Your task to perform on an android device: Open the Play Movies app and select the watchlist tab. Image 0: 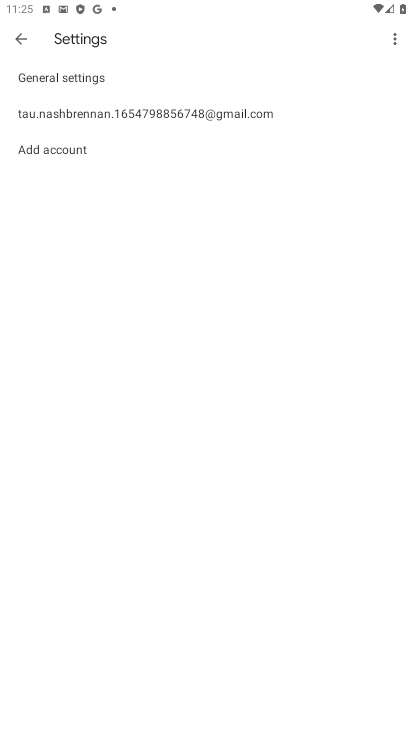
Step 0: press back button
Your task to perform on an android device: Open the Play Movies app and select the watchlist tab. Image 1: 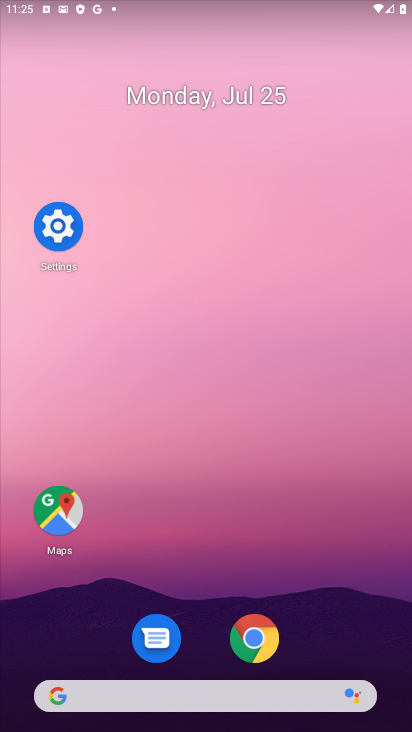
Step 1: drag from (352, 657) to (408, 263)
Your task to perform on an android device: Open the Play Movies app and select the watchlist tab. Image 2: 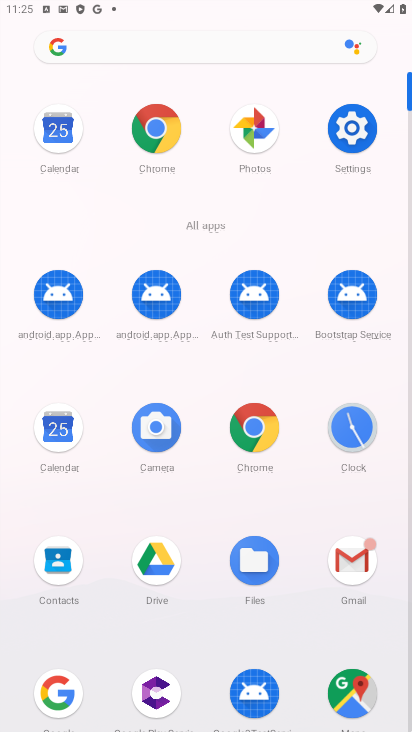
Step 2: drag from (307, 596) to (320, 267)
Your task to perform on an android device: Open the Play Movies app and select the watchlist tab. Image 3: 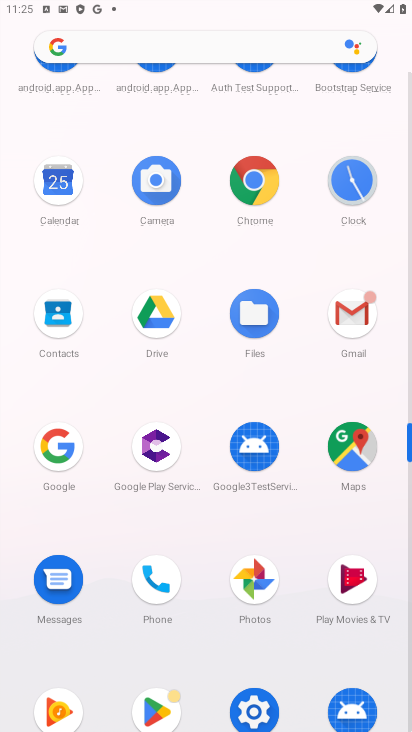
Step 3: drag from (258, 495) to (285, 220)
Your task to perform on an android device: Open the Play Movies app and select the watchlist tab. Image 4: 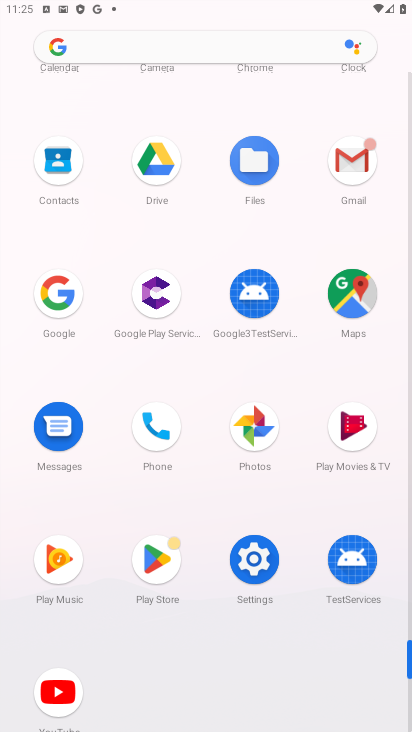
Step 4: click (346, 439)
Your task to perform on an android device: Open the Play Movies app and select the watchlist tab. Image 5: 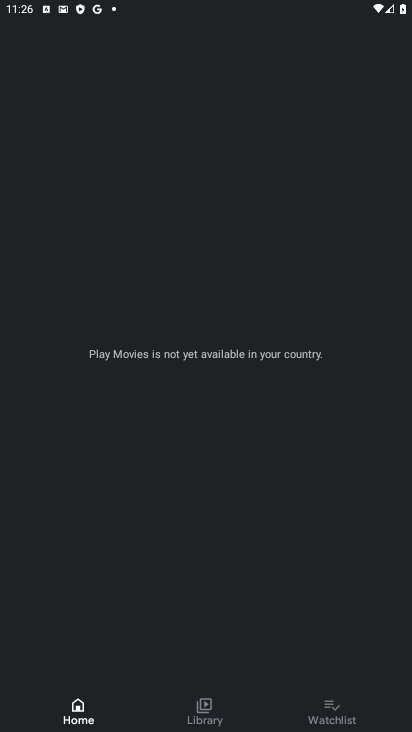
Step 5: click (324, 709)
Your task to perform on an android device: Open the Play Movies app and select the watchlist tab. Image 6: 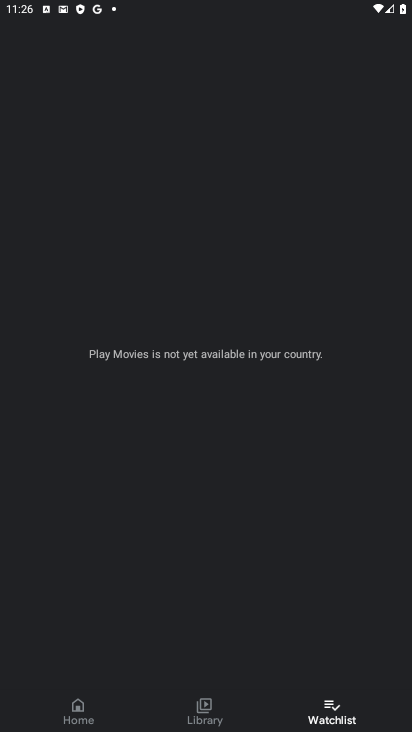
Step 6: task complete